Your task to perform on an android device: Open wifi settings Image 0: 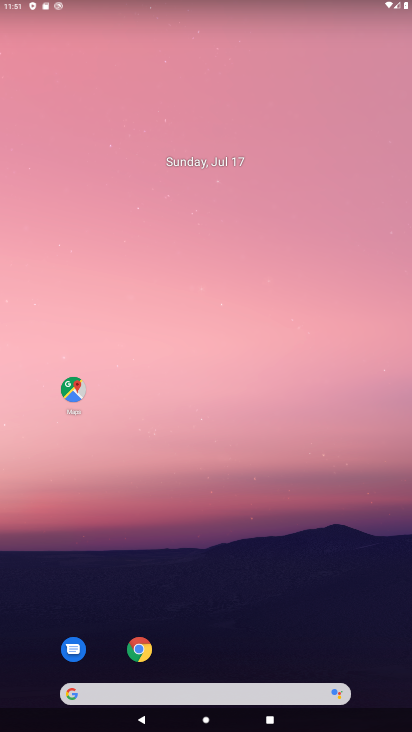
Step 0: drag from (48, 637) to (259, 91)
Your task to perform on an android device: Open wifi settings Image 1: 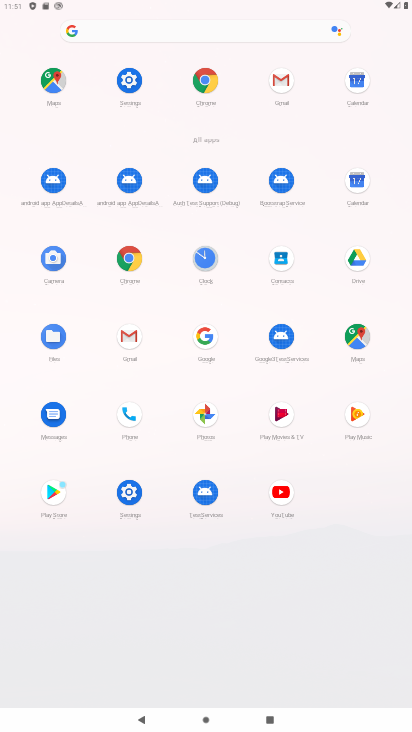
Step 1: click (123, 495)
Your task to perform on an android device: Open wifi settings Image 2: 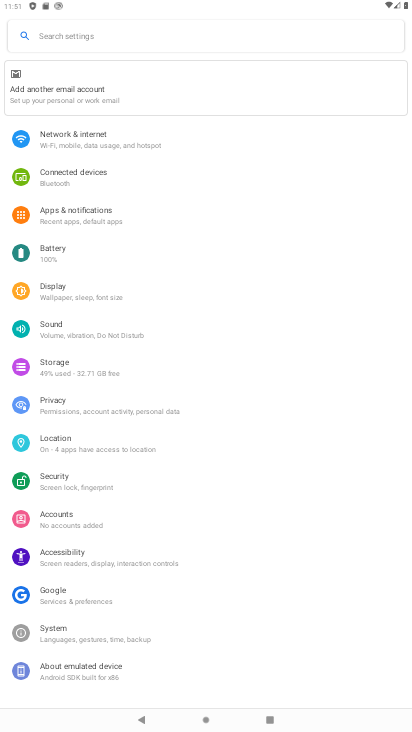
Step 2: click (112, 126)
Your task to perform on an android device: Open wifi settings Image 3: 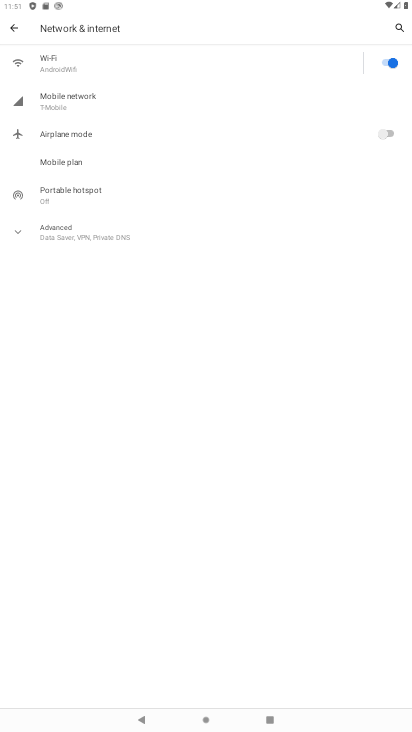
Step 3: task complete